Your task to perform on an android device: Open network settings Image 0: 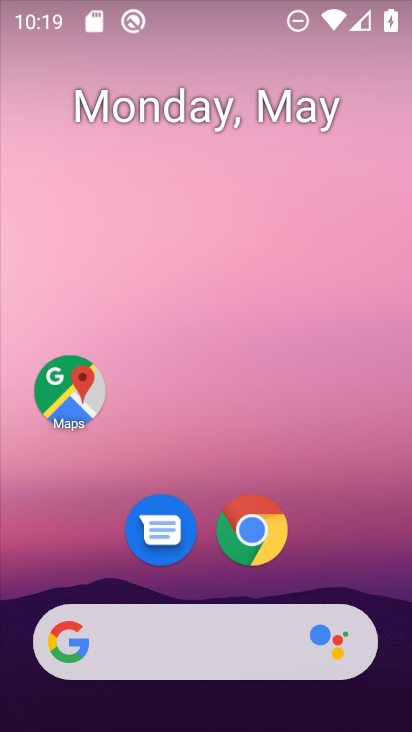
Step 0: drag from (166, 597) to (144, 77)
Your task to perform on an android device: Open network settings Image 1: 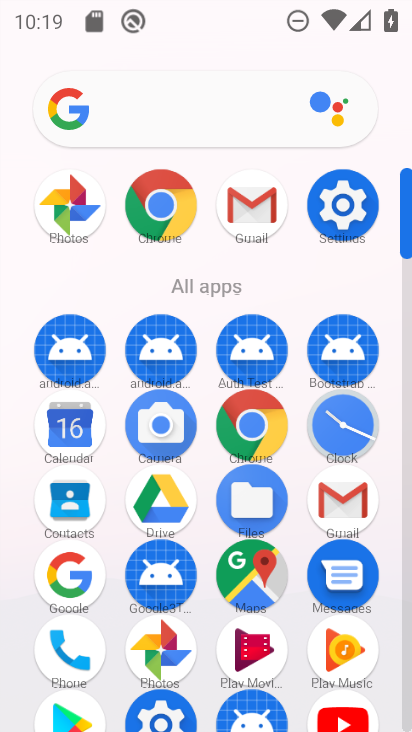
Step 1: click (331, 204)
Your task to perform on an android device: Open network settings Image 2: 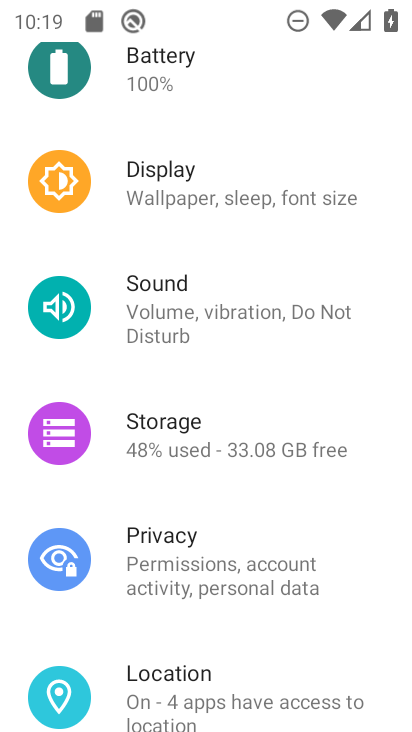
Step 2: drag from (197, 58) to (145, 598)
Your task to perform on an android device: Open network settings Image 3: 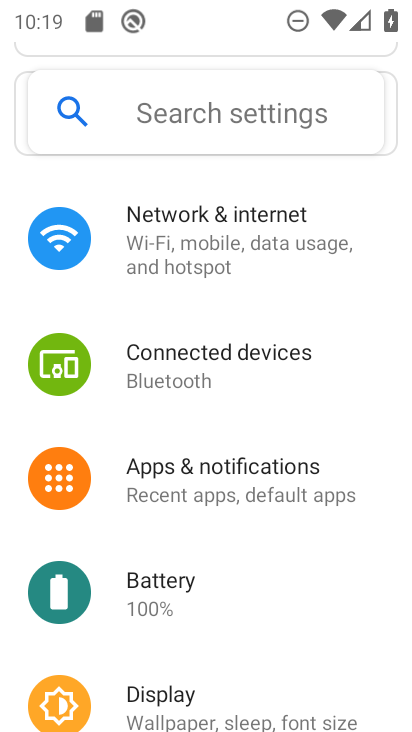
Step 3: click (193, 234)
Your task to perform on an android device: Open network settings Image 4: 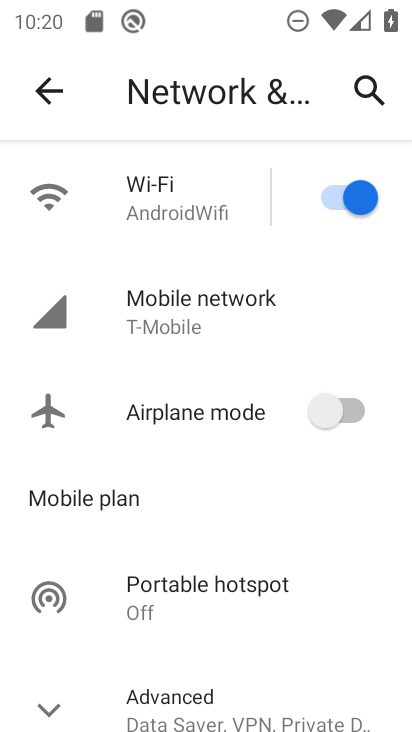
Step 4: task complete